Your task to perform on an android device: Is it going to rain tomorrow? Image 0: 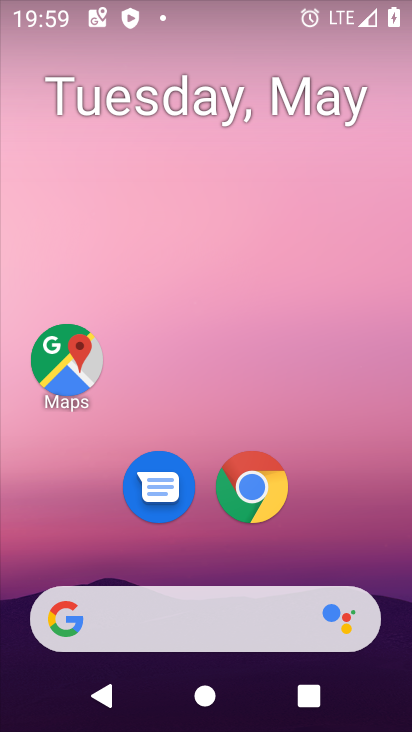
Step 0: click (213, 607)
Your task to perform on an android device: Is it going to rain tomorrow? Image 1: 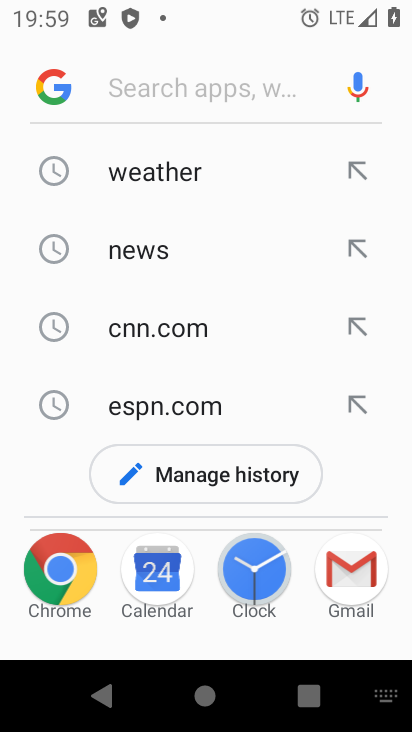
Step 1: click (168, 173)
Your task to perform on an android device: Is it going to rain tomorrow? Image 2: 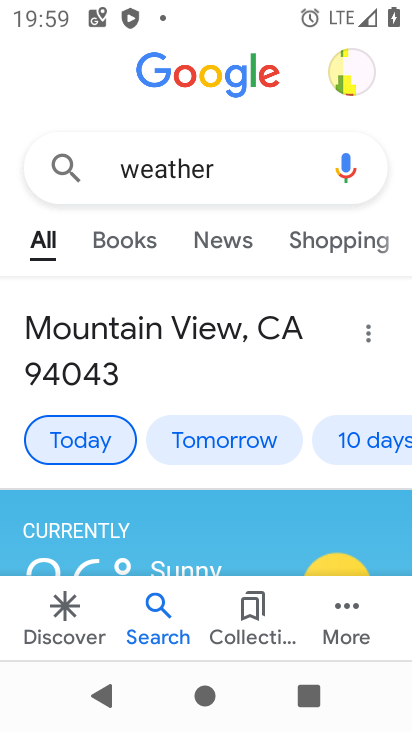
Step 2: click (209, 436)
Your task to perform on an android device: Is it going to rain tomorrow? Image 3: 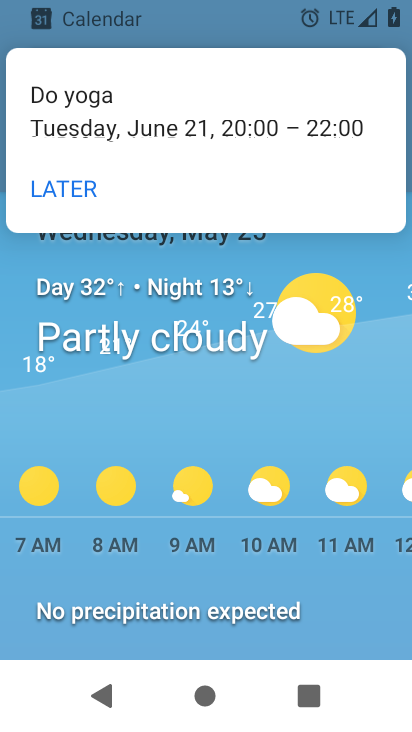
Step 3: click (67, 191)
Your task to perform on an android device: Is it going to rain tomorrow? Image 4: 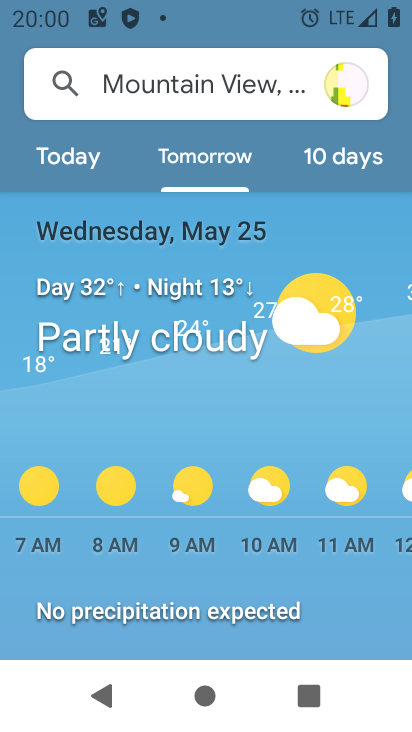
Step 4: click (227, 222)
Your task to perform on an android device: Is it going to rain tomorrow? Image 5: 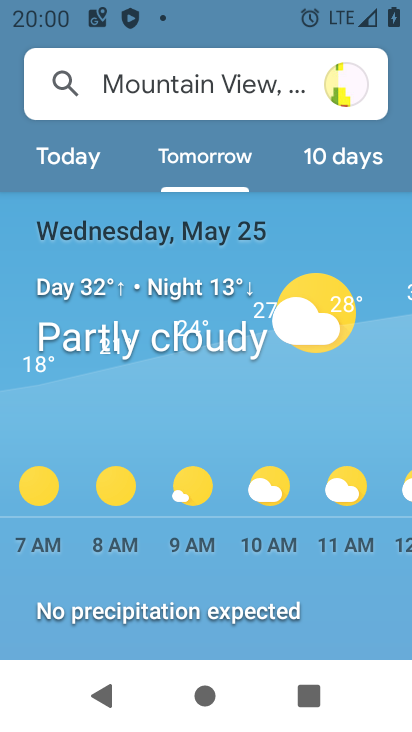
Step 5: task complete